Your task to perform on an android device: Search for seafood restaurants on Google Maps Image 0: 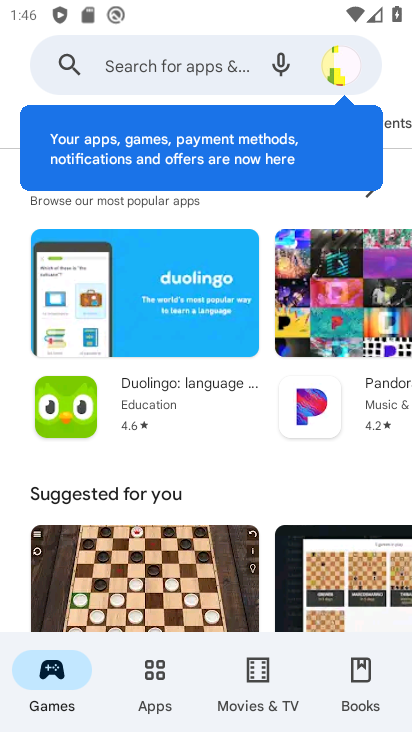
Step 0: press home button
Your task to perform on an android device: Search for seafood restaurants on Google Maps Image 1: 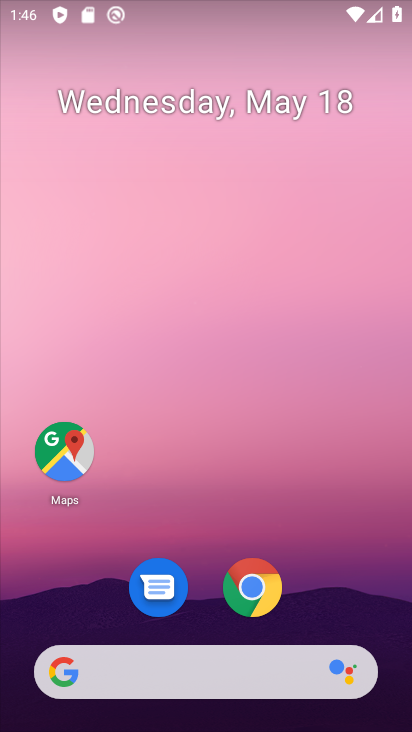
Step 1: click (64, 455)
Your task to perform on an android device: Search for seafood restaurants on Google Maps Image 2: 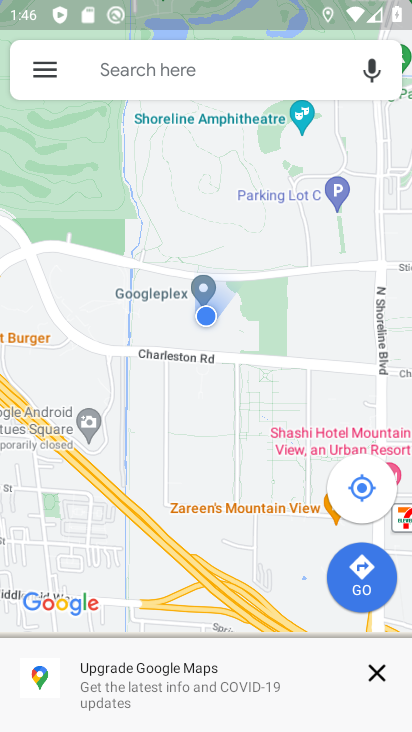
Step 2: click (109, 69)
Your task to perform on an android device: Search for seafood restaurants on Google Maps Image 3: 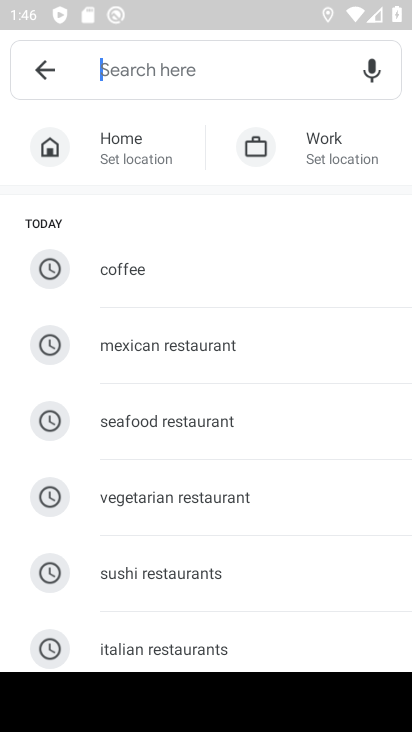
Step 3: type "seafood restaurant"
Your task to perform on an android device: Search for seafood restaurants on Google Maps Image 4: 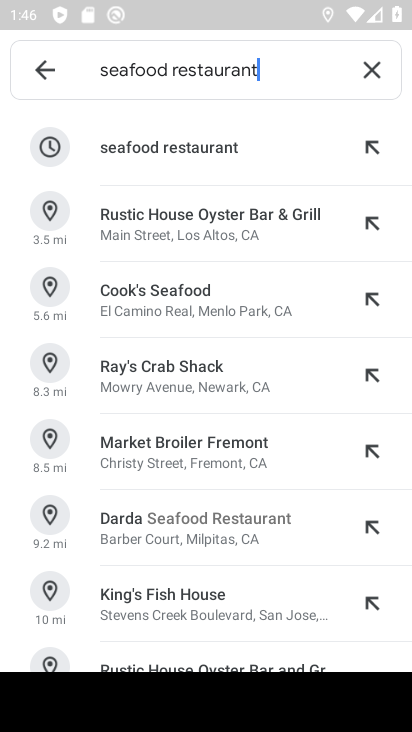
Step 4: click (142, 150)
Your task to perform on an android device: Search for seafood restaurants on Google Maps Image 5: 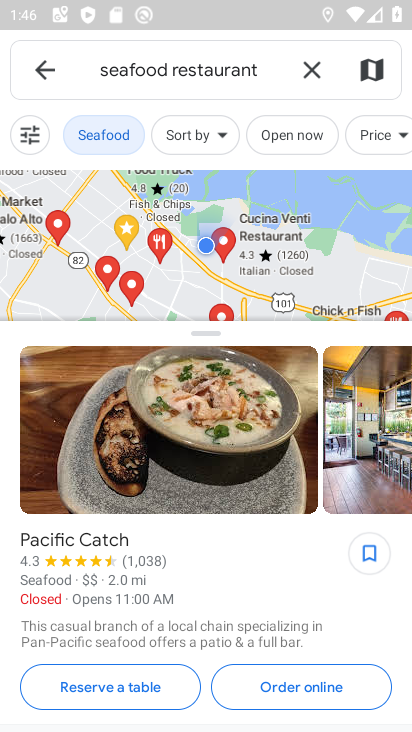
Step 5: task complete